Your task to perform on an android device: What's the weather? Image 0: 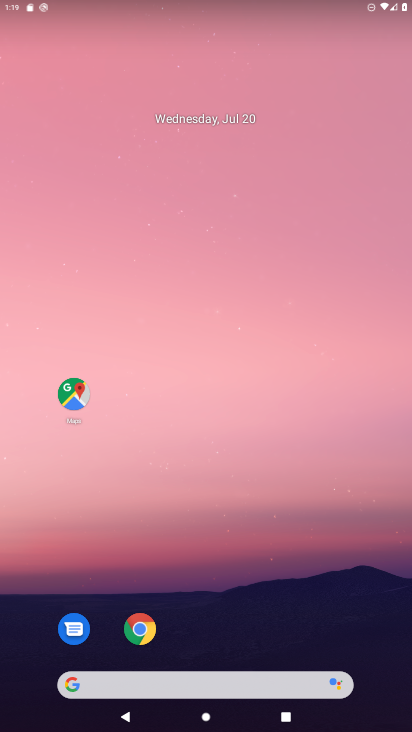
Step 0: click (154, 678)
Your task to perform on an android device: What's the weather? Image 1: 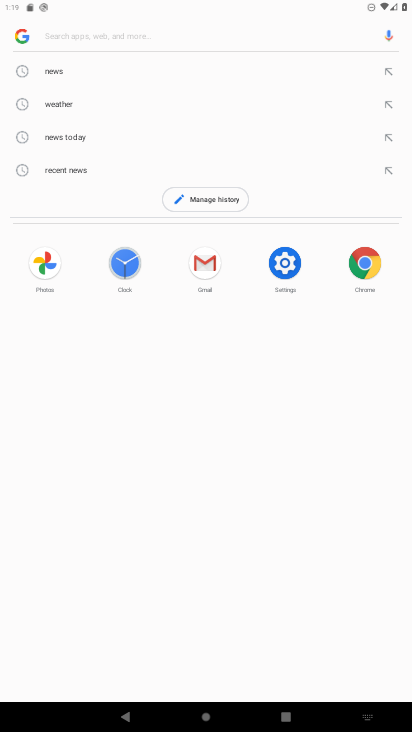
Step 1: click (51, 102)
Your task to perform on an android device: What's the weather? Image 2: 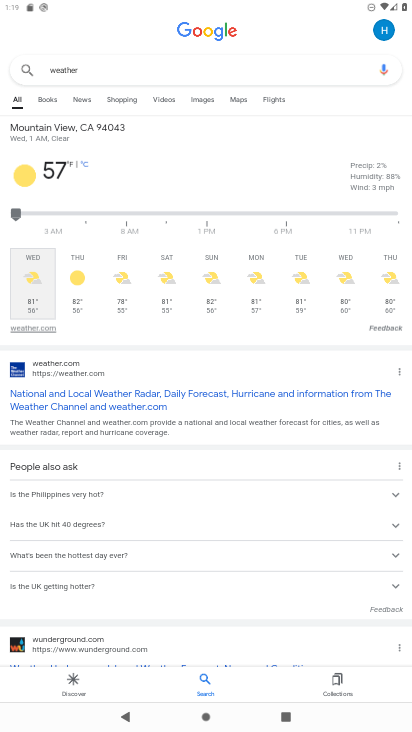
Step 2: task complete